Your task to perform on an android device: add a label to a message in the gmail app Image 0: 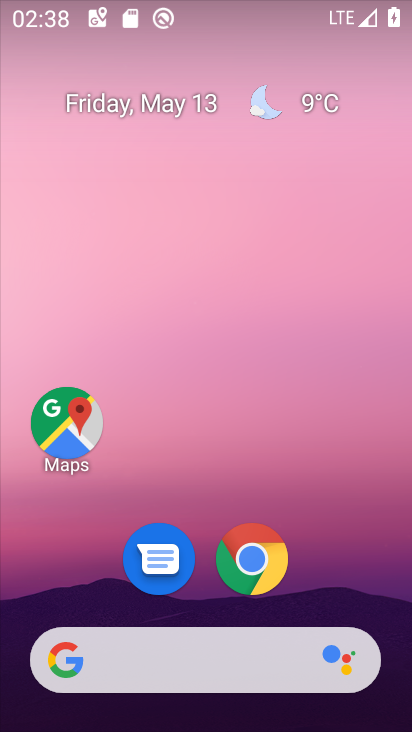
Step 0: drag from (382, 546) to (329, 250)
Your task to perform on an android device: add a label to a message in the gmail app Image 1: 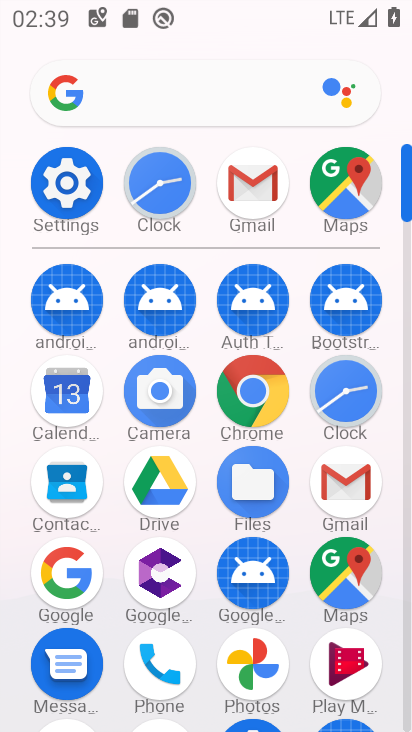
Step 1: click (365, 497)
Your task to perform on an android device: add a label to a message in the gmail app Image 2: 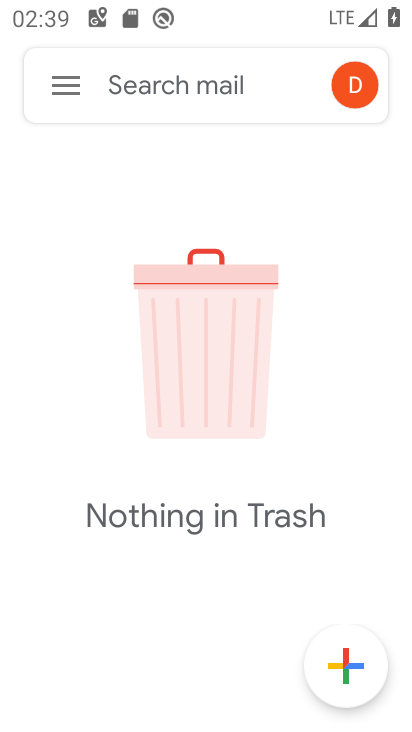
Step 2: click (75, 87)
Your task to perform on an android device: add a label to a message in the gmail app Image 3: 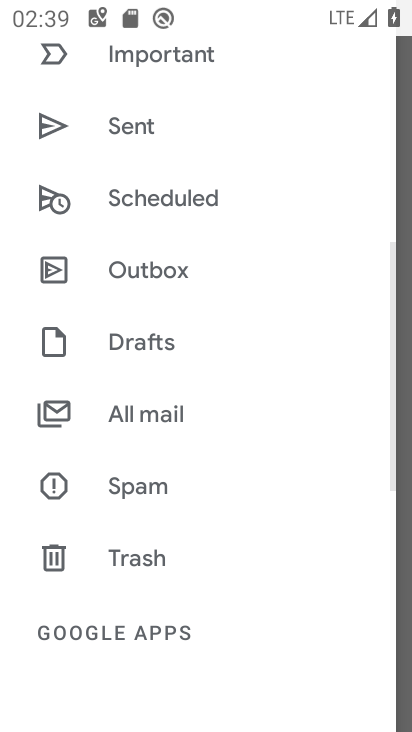
Step 3: drag from (292, 120) to (309, 425)
Your task to perform on an android device: add a label to a message in the gmail app Image 4: 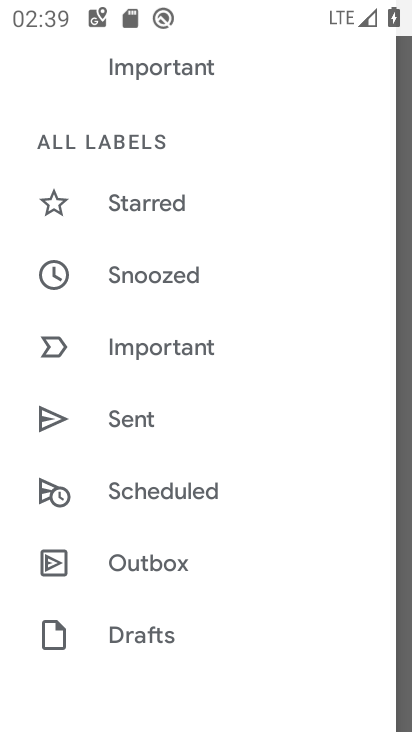
Step 4: drag from (297, 157) to (315, 431)
Your task to perform on an android device: add a label to a message in the gmail app Image 5: 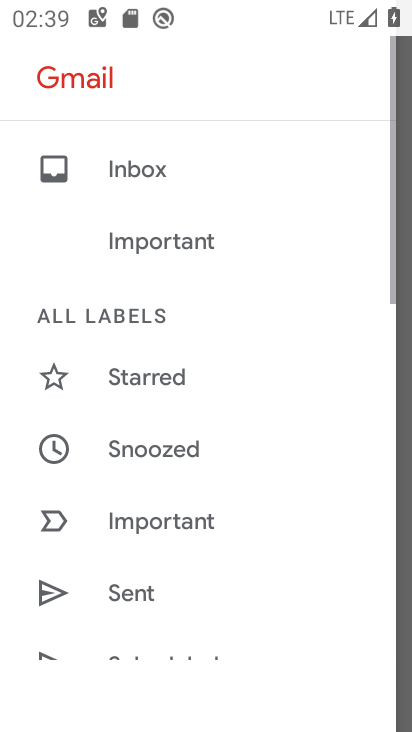
Step 5: click (129, 178)
Your task to perform on an android device: add a label to a message in the gmail app Image 6: 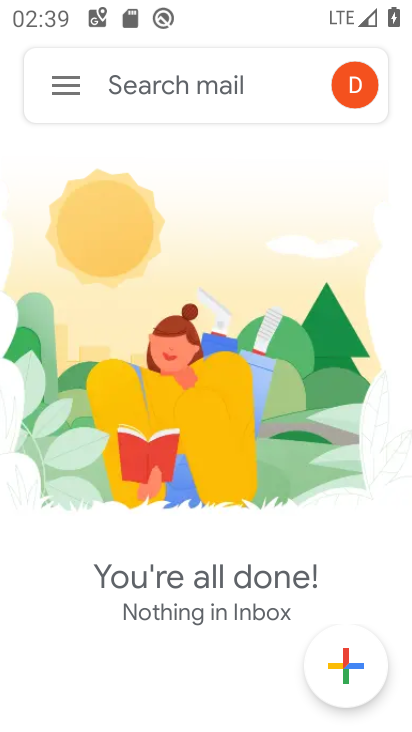
Step 6: task complete